Your task to perform on an android device: change the clock display to digital Image 0: 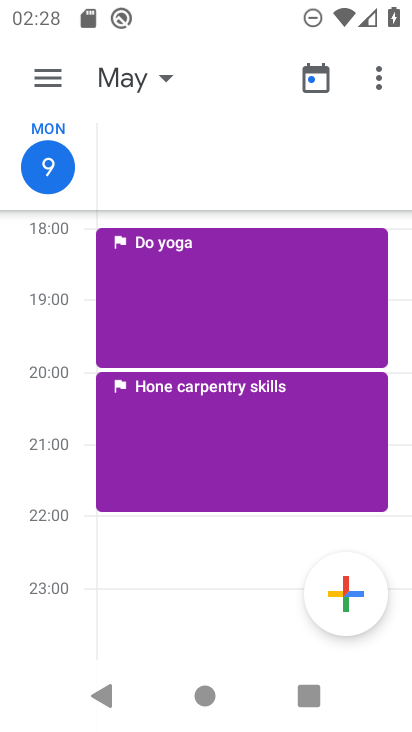
Step 0: press home button
Your task to perform on an android device: change the clock display to digital Image 1: 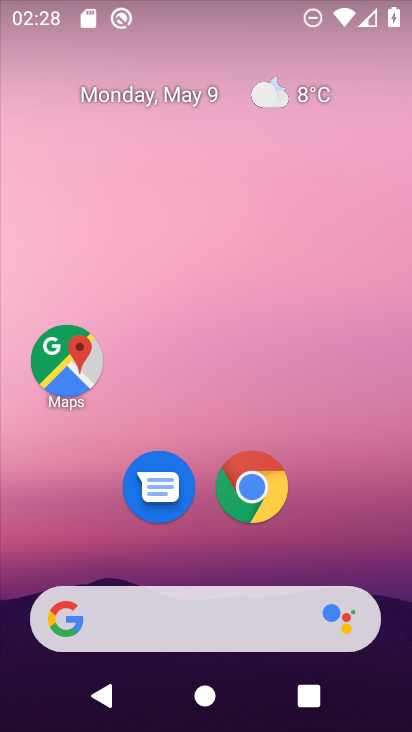
Step 1: drag from (308, 324) to (263, 0)
Your task to perform on an android device: change the clock display to digital Image 2: 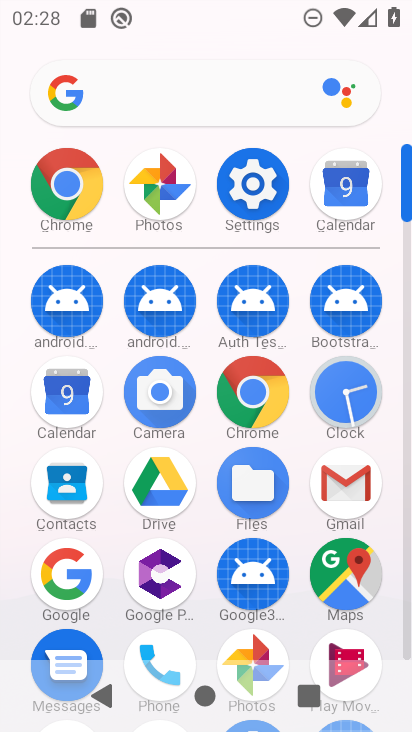
Step 2: click (356, 390)
Your task to perform on an android device: change the clock display to digital Image 3: 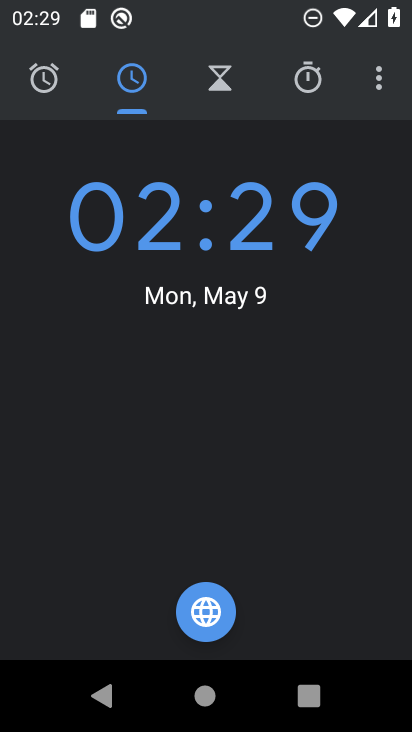
Step 3: click (383, 81)
Your task to perform on an android device: change the clock display to digital Image 4: 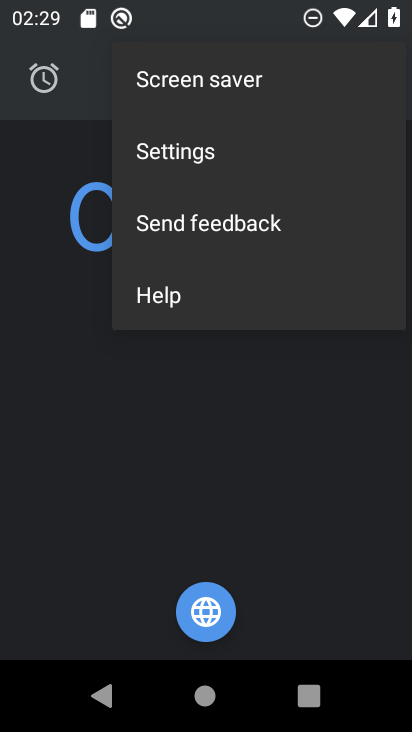
Step 4: click (183, 162)
Your task to perform on an android device: change the clock display to digital Image 5: 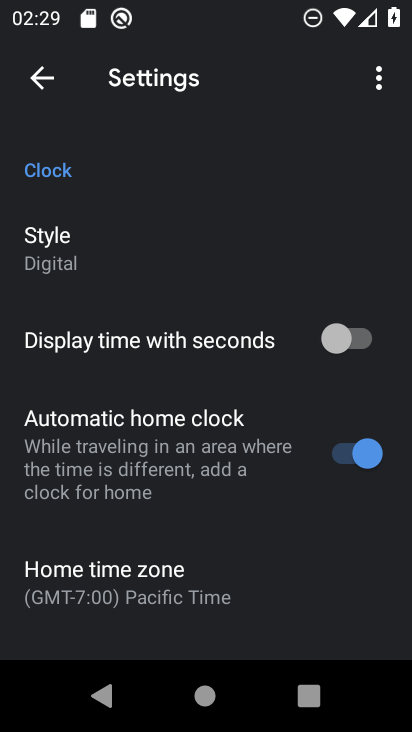
Step 5: task complete